Your task to perform on an android device: toggle wifi Image 0: 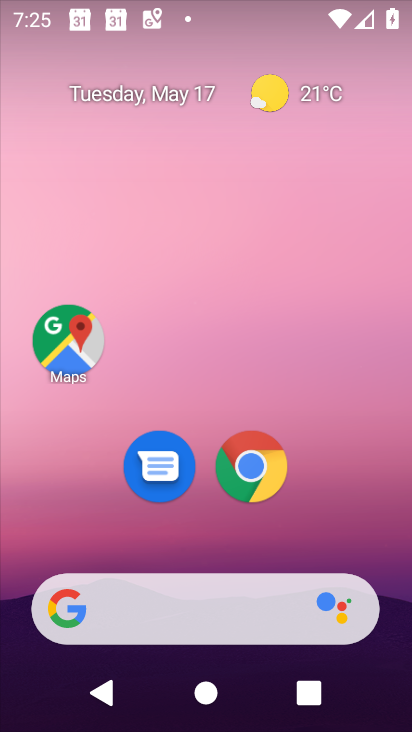
Step 0: drag from (236, 275) to (280, 133)
Your task to perform on an android device: toggle wifi Image 1: 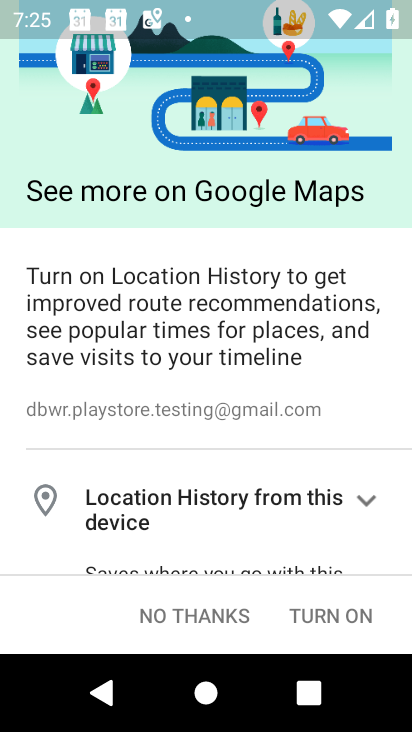
Step 1: press home button
Your task to perform on an android device: toggle wifi Image 2: 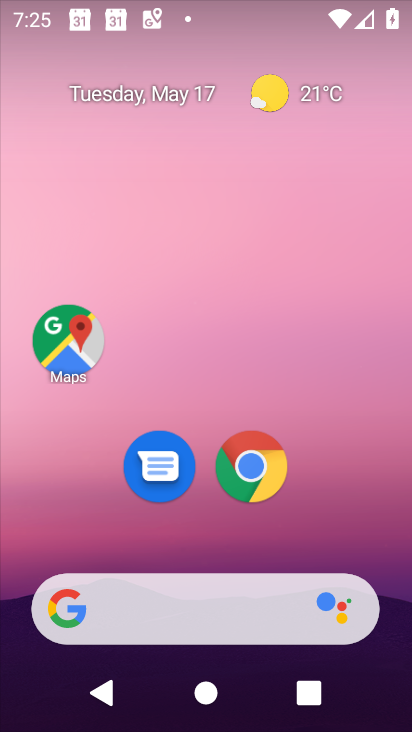
Step 2: drag from (189, 603) to (342, 107)
Your task to perform on an android device: toggle wifi Image 3: 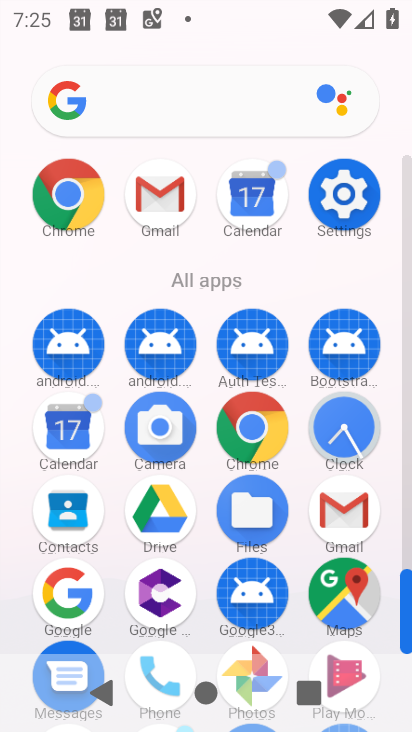
Step 3: click (340, 182)
Your task to perform on an android device: toggle wifi Image 4: 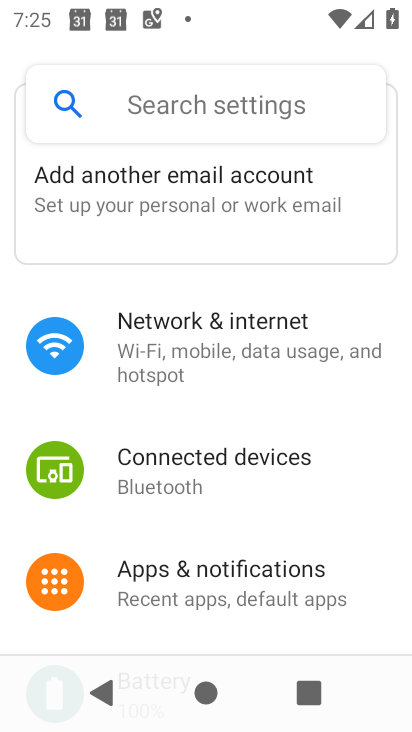
Step 4: click (261, 340)
Your task to perform on an android device: toggle wifi Image 5: 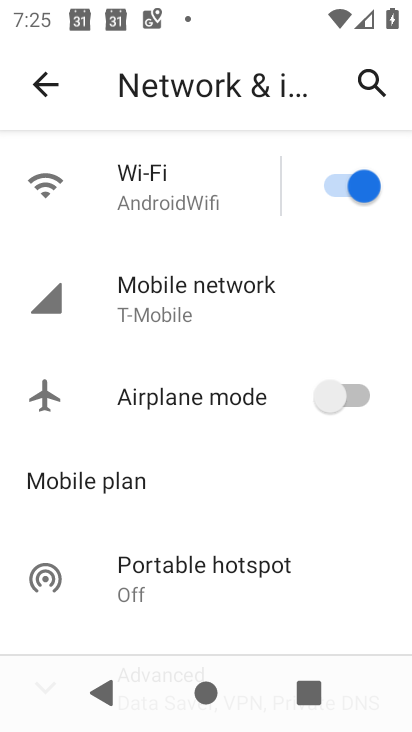
Step 5: click (339, 182)
Your task to perform on an android device: toggle wifi Image 6: 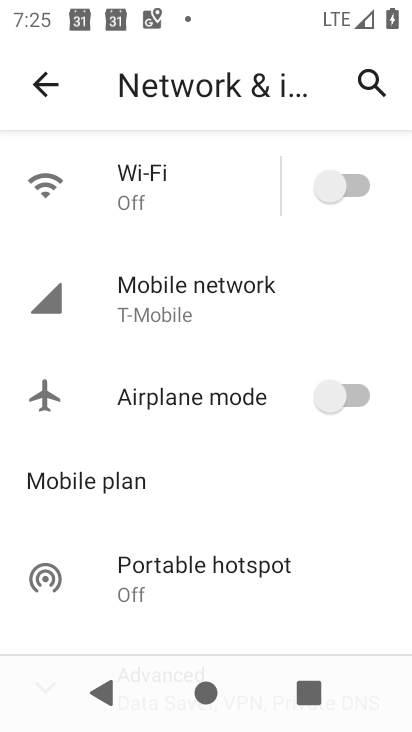
Step 6: task complete